Your task to perform on an android device: When is my next appointment? Image 0: 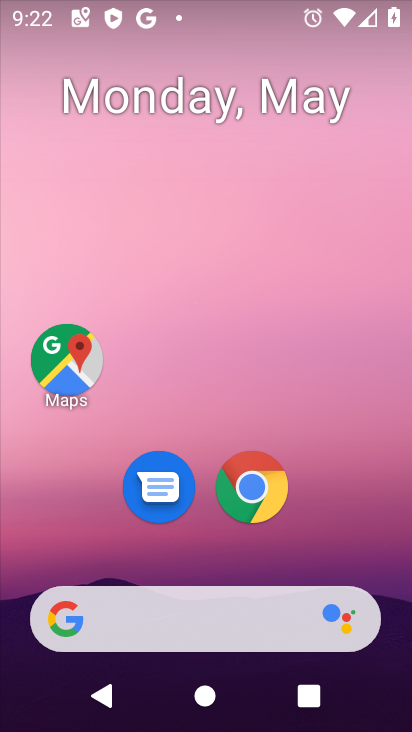
Step 0: click (114, 109)
Your task to perform on an android device: When is my next appointment? Image 1: 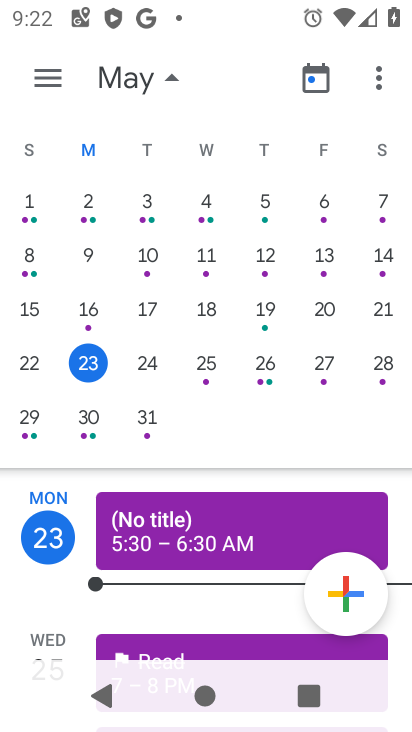
Step 1: click (59, 89)
Your task to perform on an android device: When is my next appointment? Image 2: 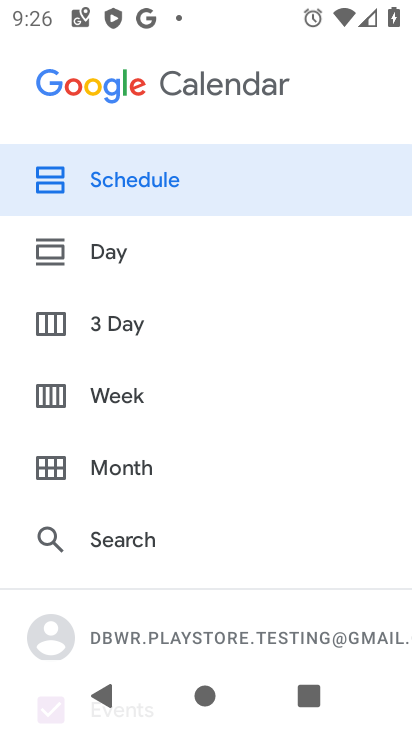
Step 2: task complete